Your task to perform on an android device: open wifi settings Image 0: 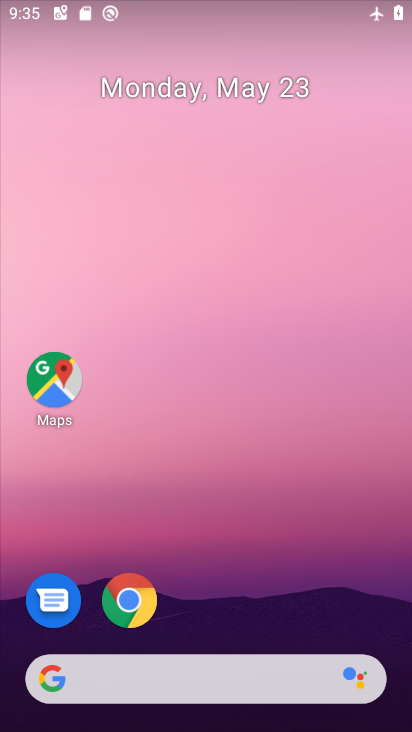
Step 0: drag from (174, 722) to (157, 4)
Your task to perform on an android device: open wifi settings Image 1: 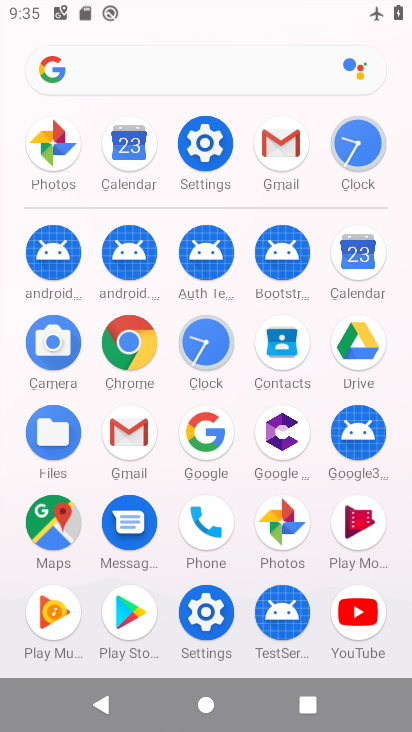
Step 1: click (201, 131)
Your task to perform on an android device: open wifi settings Image 2: 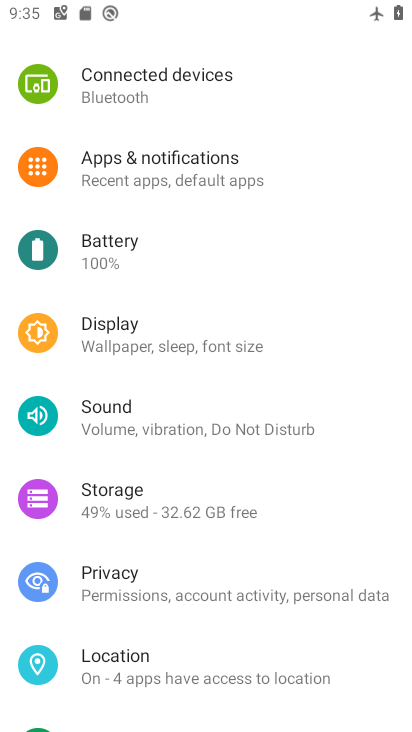
Step 2: drag from (168, 122) to (192, 444)
Your task to perform on an android device: open wifi settings Image 3: 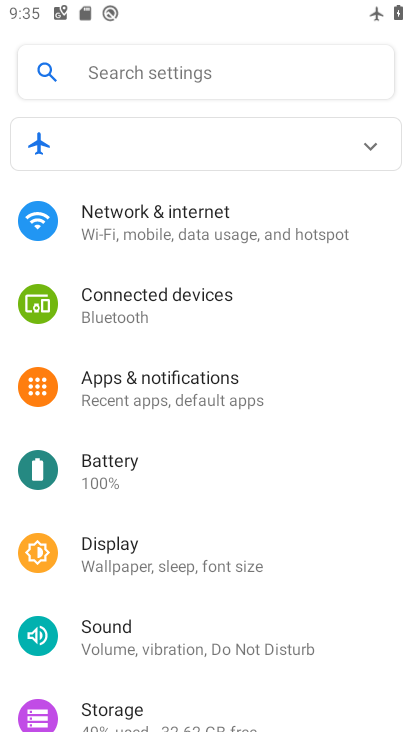
Step 3: click (183, 219)
Your task to perform on an android device: open wifi settings Image 4: 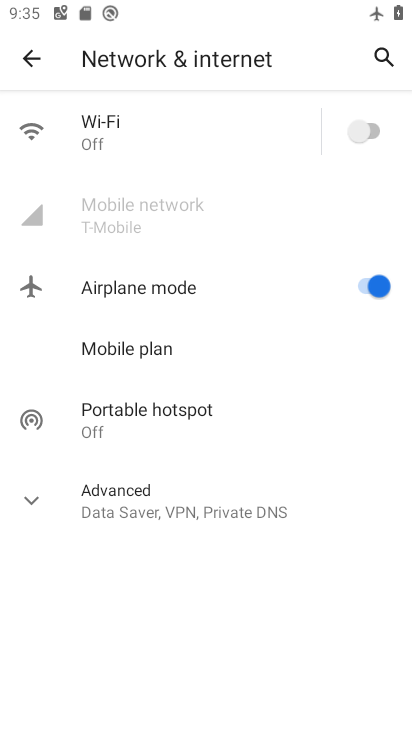
Step 4: click (96, 136)
Your task to perform on an android device: open wifi settings Image 5: 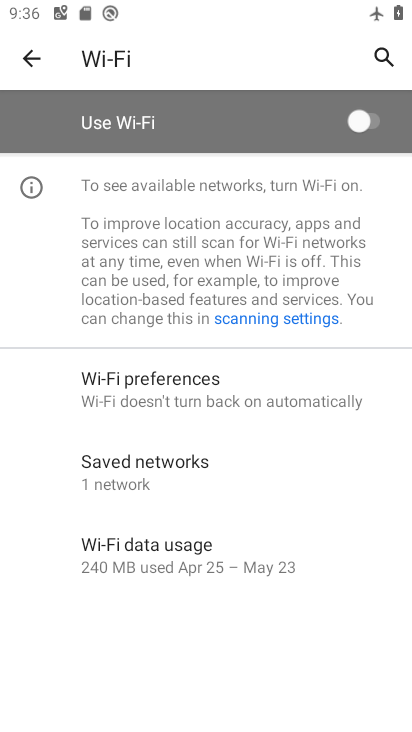
Step 5: task complete